Your task to perform on an android device: Set the phone to "Do not disturb". Image 0: 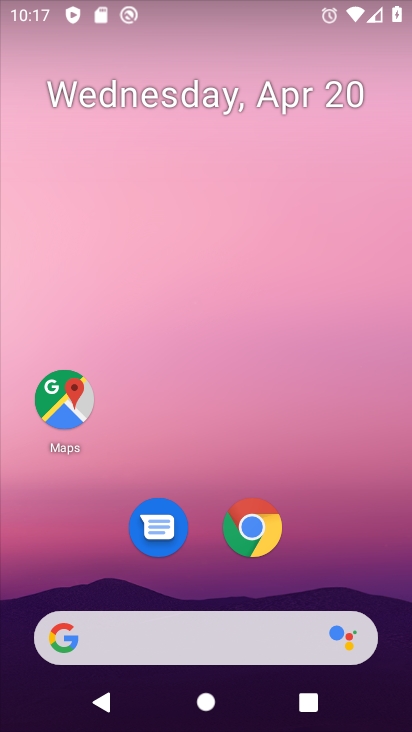
Step 0: drag from (193, 572) to (278, 19)
Your task to perform on an android device: Set the phone to "Do not disturb". Image 1: 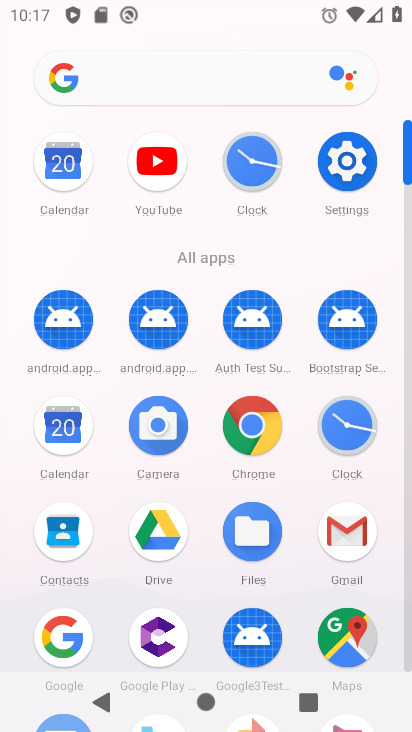
Step 1: click (343, 176)
Your task to perform on an android device: Set the phone to "Do not disturb". Image 2: 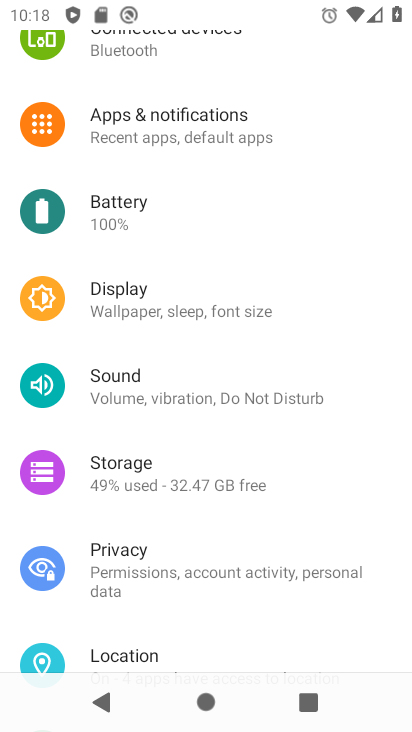
Step 2: click (150, 400)
Your task to perform on an android device: Set the phone to "Do not disturb". Image 3: 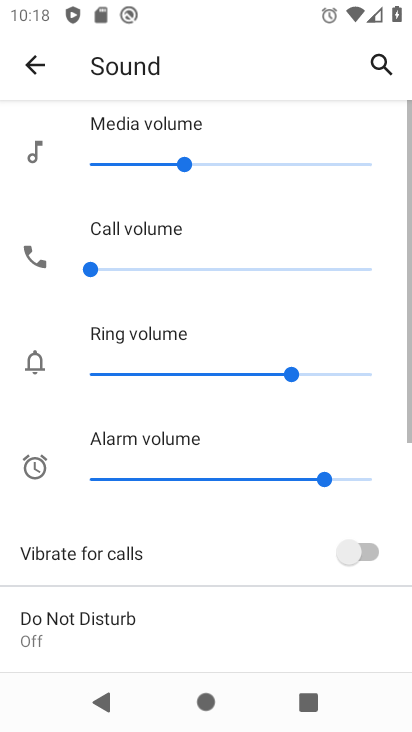
Step 3: drag from (117, 571) to (184, 161)
Your task to perform on an android device: Set the phone to "Do not disturb". Image 4: 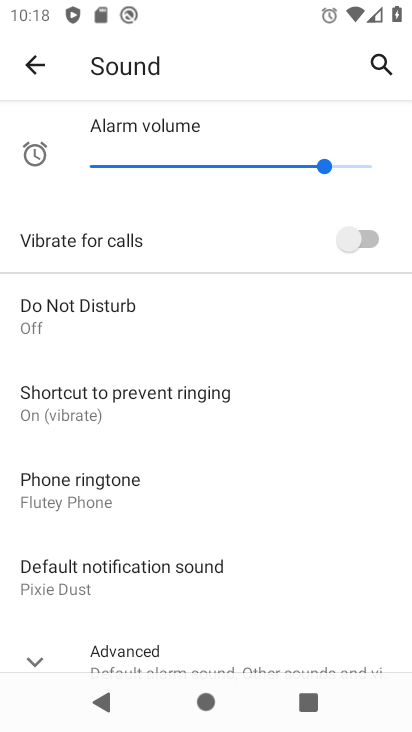
Step 4: click (89, 322)
Your task to perform on an android device: Set the phone to "Do not disturb". Image 5: 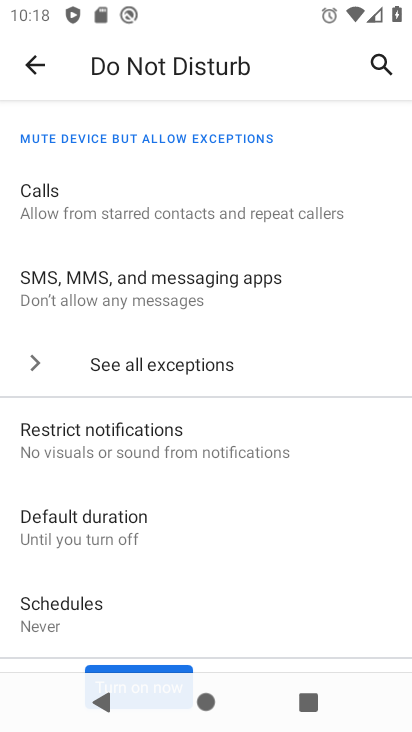
Step 5: drag from (135, 572) to (183, 219)
Your task to perform on an android device: Set the phone to "Do not disturb". Image 6: 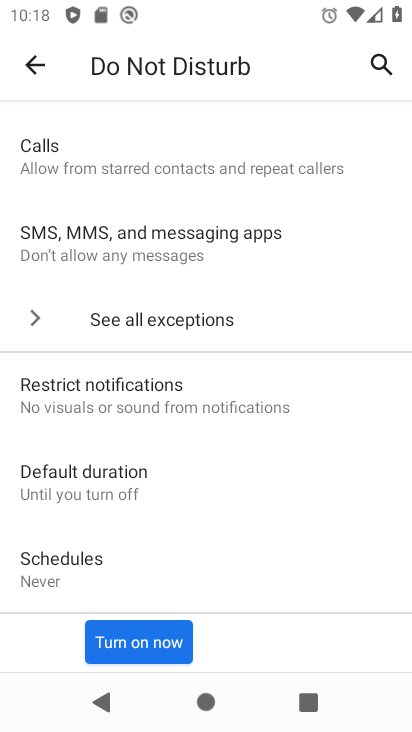
Step 6: click (129, 634)
Your task to perform on an android device: Set the phone to "Do not disturb". Image 7: 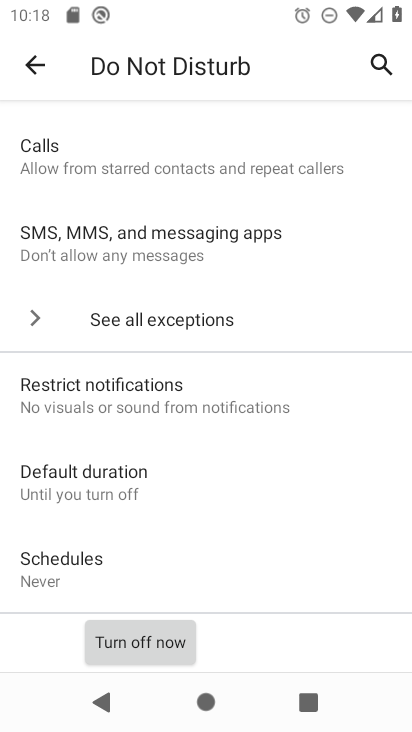
Step 7: task complete